Your task to perform on an android device: clear all cookies in the chrome app Image 0: 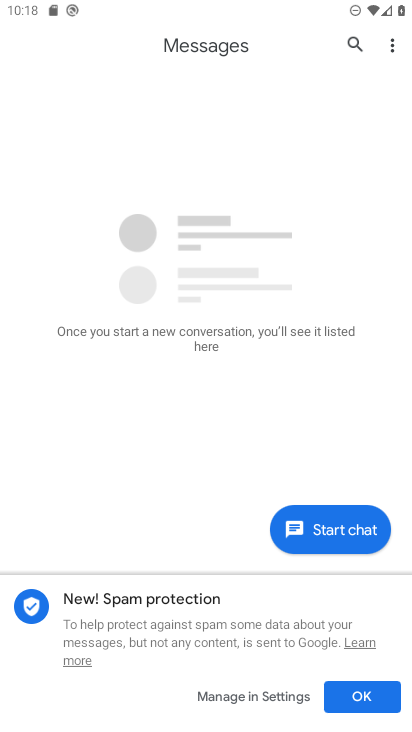
Step 0: press home button
Your task to perform on an android device: clear all cookies in the chrome app Image 1: 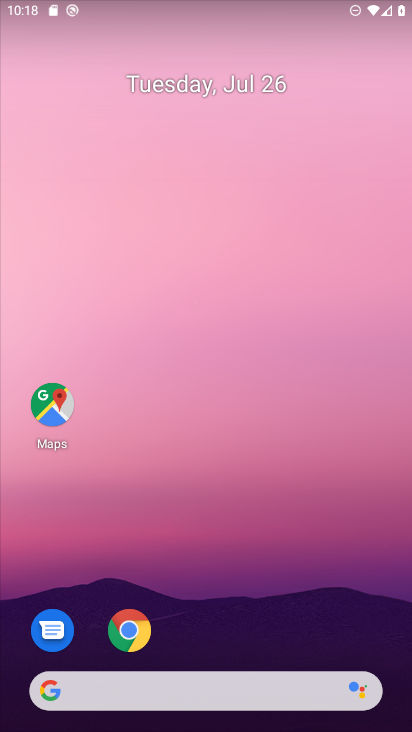
Step 1: click (130, 630)
Your task to perform on an android device: clear all cookies in the chrome app Image 2: 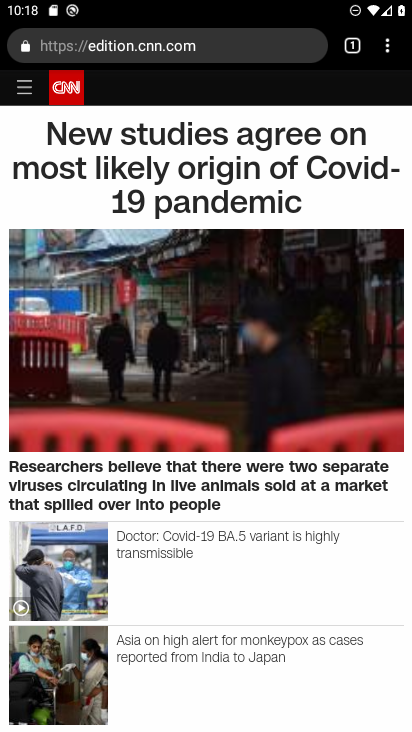
Step 2: click (388, 52)
Your task to perform on an android device: clear all cookies in the chrome app Image 3: 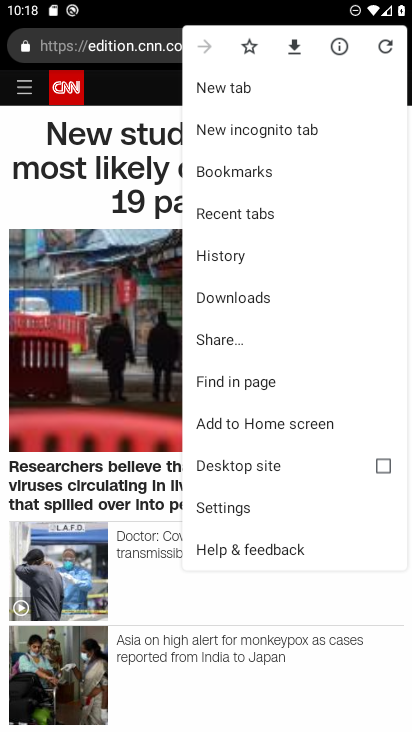
Step 3: click (215, 258)
Your task to perform on an android device: clear all cookies in the chrome app Image 4: 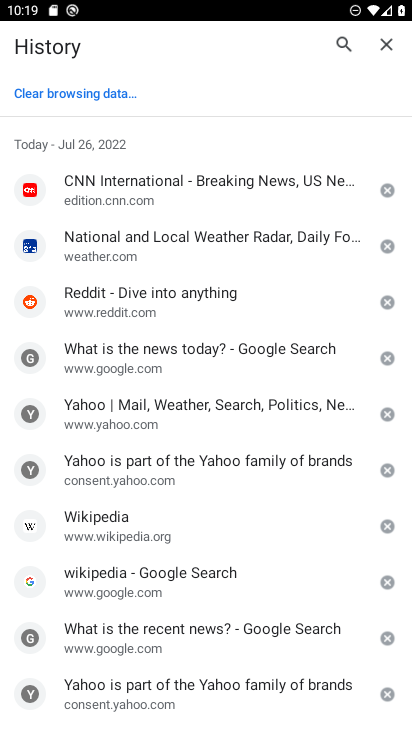
Step 4: click (83, 94)
Your task to perform on an android device: clear all cookies in the chrome app Image 5: 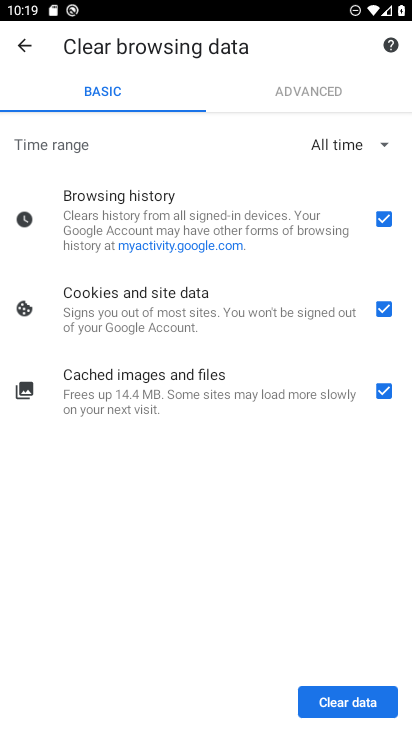
Step 5: click (381, 216)
Your task to perform on an android device: clear all cookies in the chrome app Image 6: 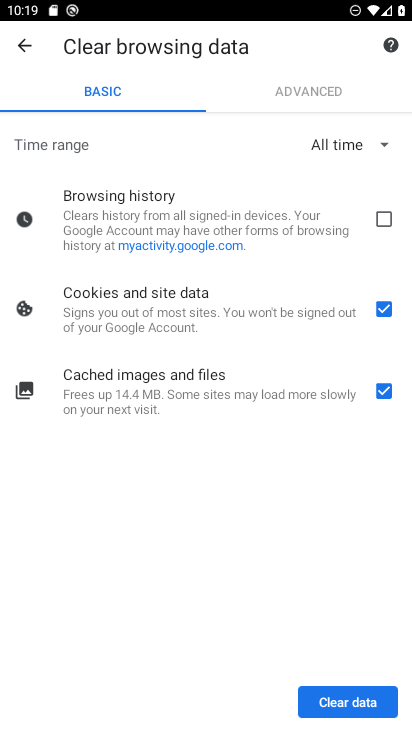
Step 6: click (386, 394)
Your task to perform on an android device: clear all cookies in the chrome app Image 7: 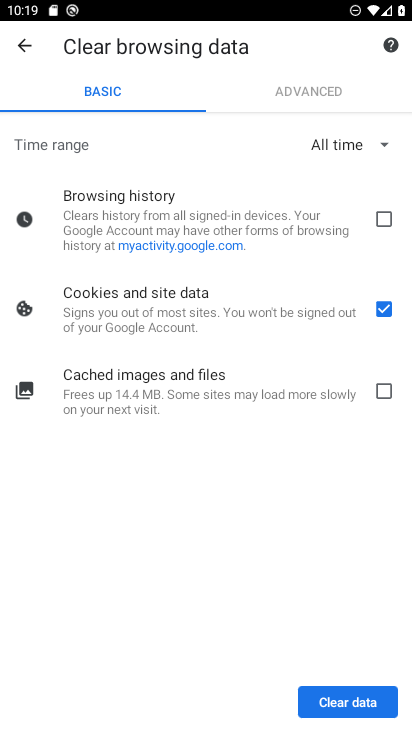
Step 7: click (360, 701)
Your task to perform on an android device: clear all cookies in the chrome app Image 8: 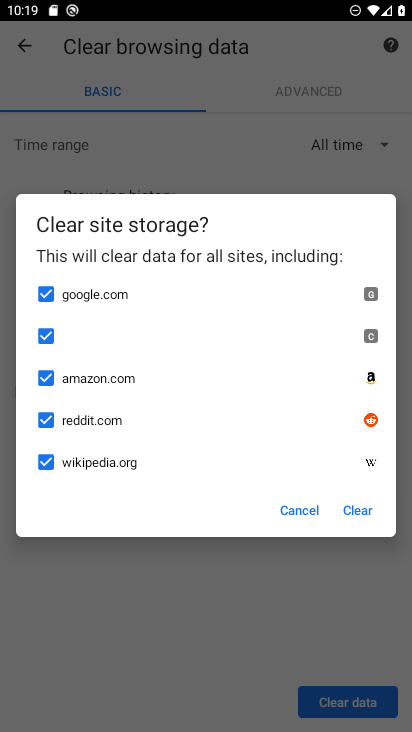
Step 8: click (354, 509)
Your task to perform on an android device: clear all cookies in the chrome app Image 9: 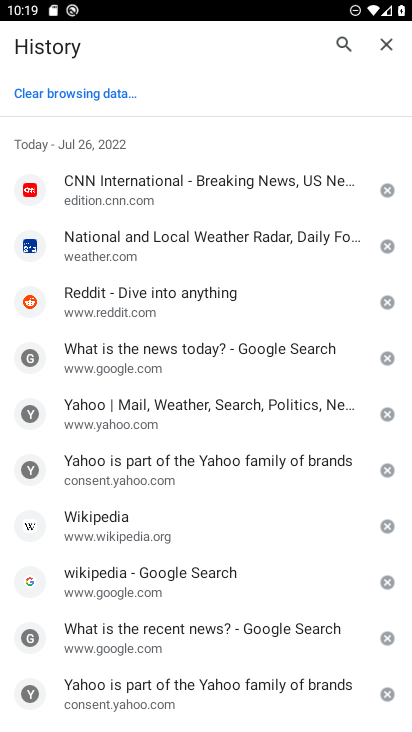
Step 9: task complete